Your task to perform on an android device: Look up the book "The Girl on the Train". Image 0: 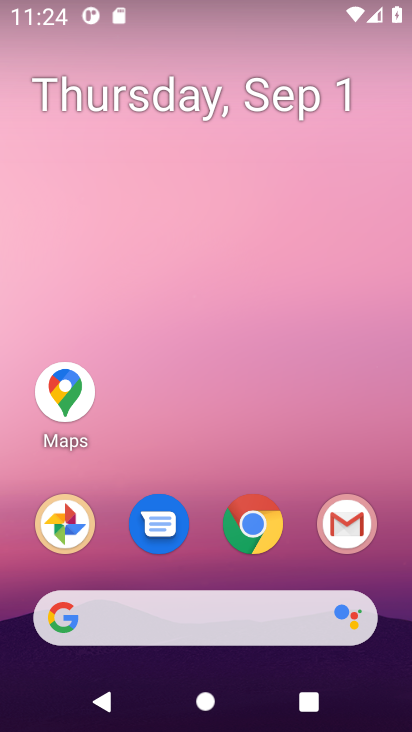
Step 0: click (225, 621)
Your task to perform on an android device: Look up the book "The Girl on the Train". Image 1: 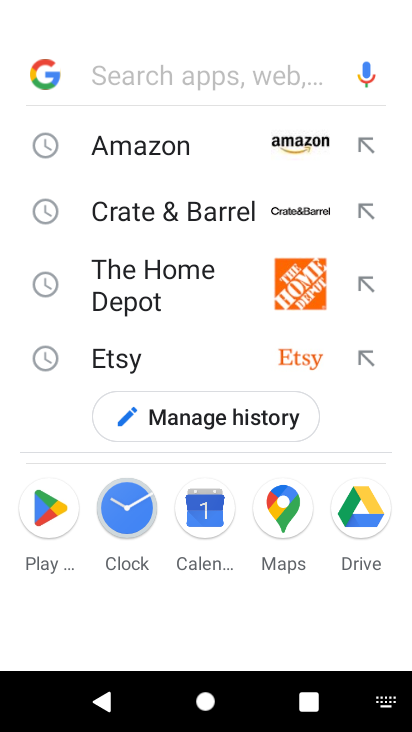
Step 1: press enter
Your task to perform on an android device: Look up the book "The Girl on the Train". Image 2: 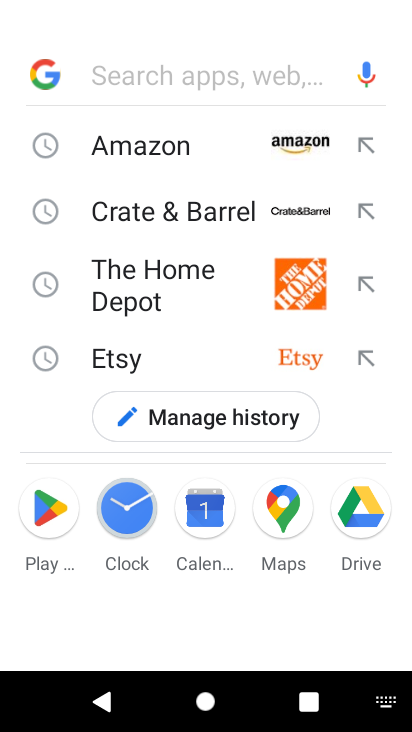
Step 2: type "the train"
Your task to perform on an android device: Look up the book "The Girl on the Train". Image 3: 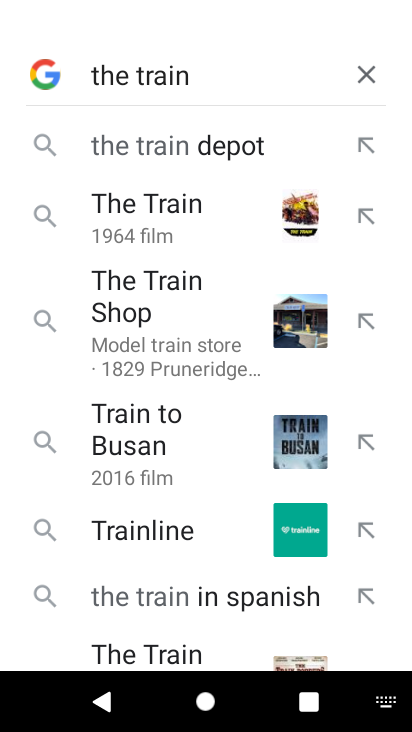
Step 3: click (150, 212)
Your task to perform on an android device: Look up the book "The Girl on the Train". Image 4: 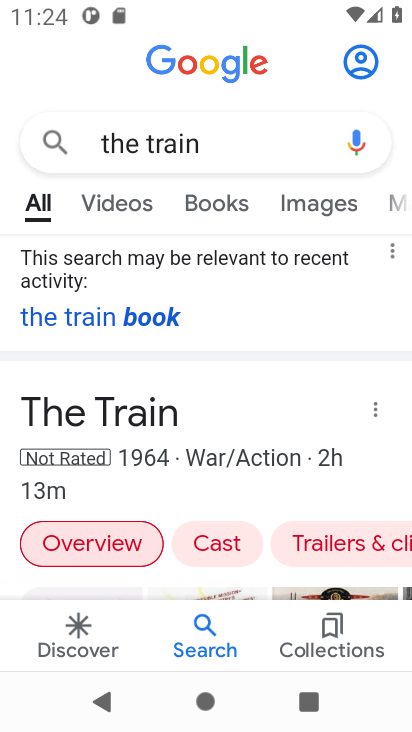
Step 4: drag from (236, 392) to (253, 208)
Your task to perform on an android device: Look up the book "The Girl on the Train". Image 5: 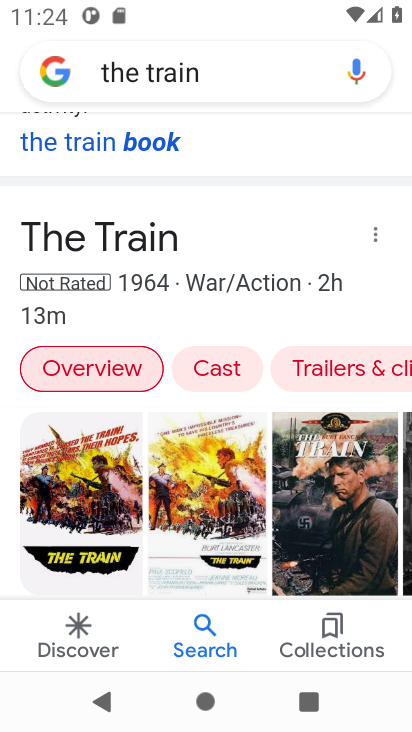
Step 5: drag from (221, 452) to (228, 168)
Your task to perform on an android device: Look up the book "The Girl on the Train". Image 6: 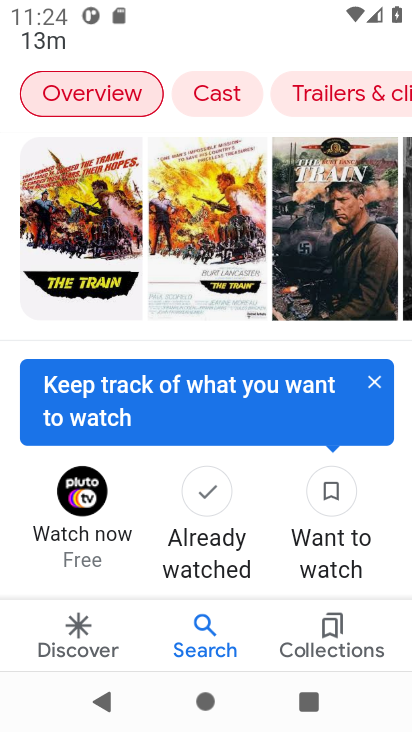
Step 6: drag from (241, 484) to (230, 266)
Your task to perform on an android device: Look up the book "The Girl on the Train". Image 7: 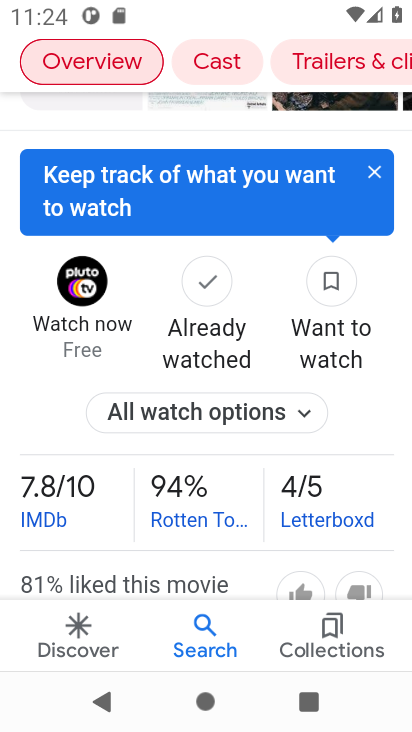
Step 7: drag from (224, 502) to (211, 252)
Your task to perform on an android device: Look up the book "The Girl on the Train". Image 8: 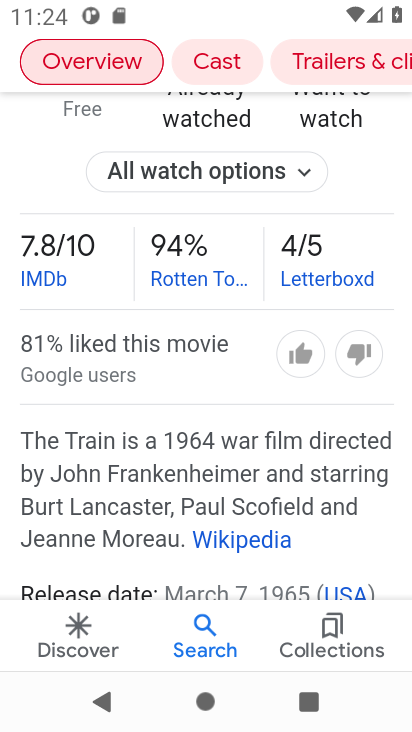
Step 8: drag from (232, 550) to (228, 241)
Your task to perform on an android device: Look up the book "The Girl on the Train". Image 9: 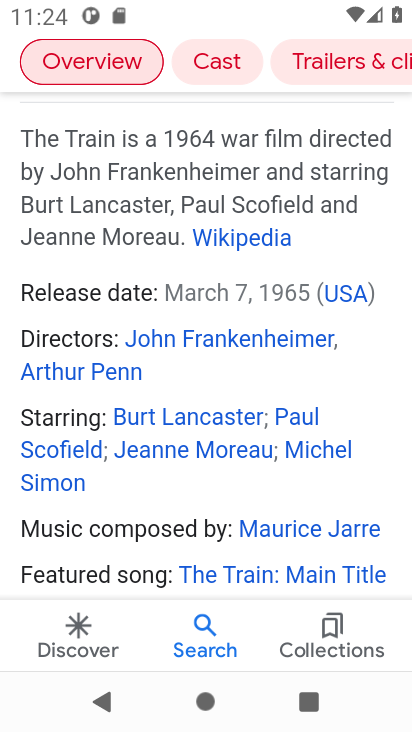
Step 9: drag from (238, 526) to (215, 261)
Your task to perform on an android device: Look up the book "The Girl on the Train". Image 10: 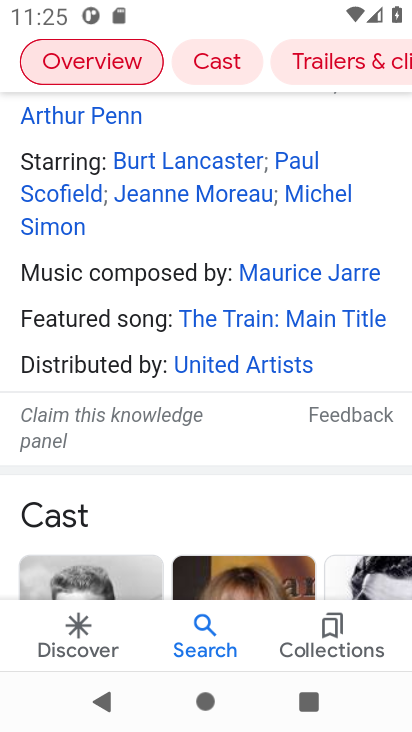
Step 10: drag from (222, 151) to (230, 514)
Your task to perform on an android device: Look up the book "The Girl on the Train". Image 11: 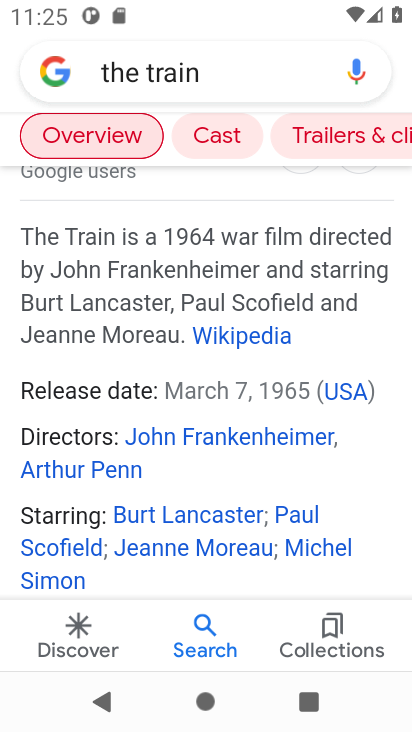
Step 11: drag from (236, 129) to (254, 491)
Your task to perform on an android device: Look up the book "The Girl on the Train". Image 12: 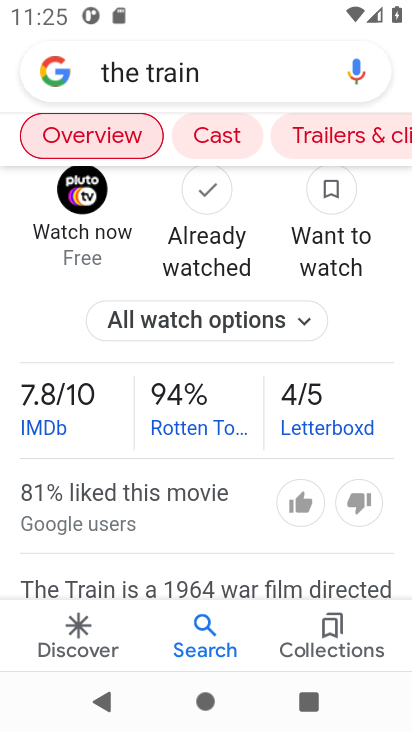
Step 12: drag from (253, 181) to (277, 522)
Your task to perform on an android device: Look up the book "The Girl on the Train". Image 13: 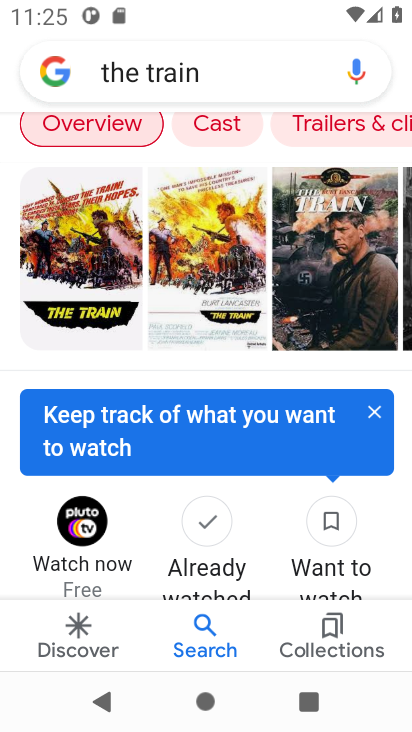
Step 13: drag from (268, 138) to (294, 482)
Your task to perform on an android device: Look up the book "The Girl on the Train". Image 14: 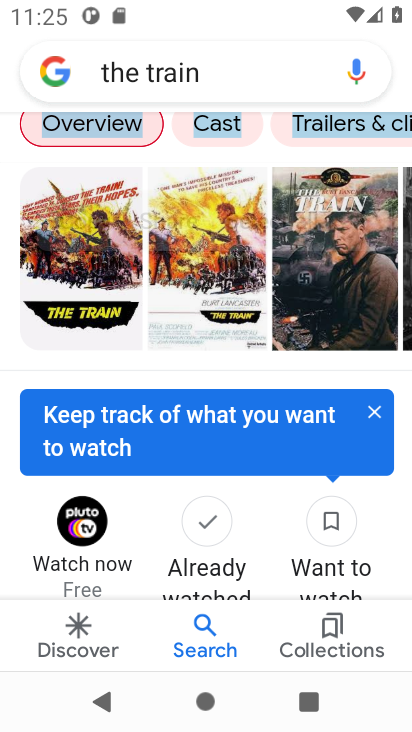
Step 14: drag from (289, 142) to (292, 475)
Your task to perform on an android device: Look up the book "The Girl on the Train". Image 15: 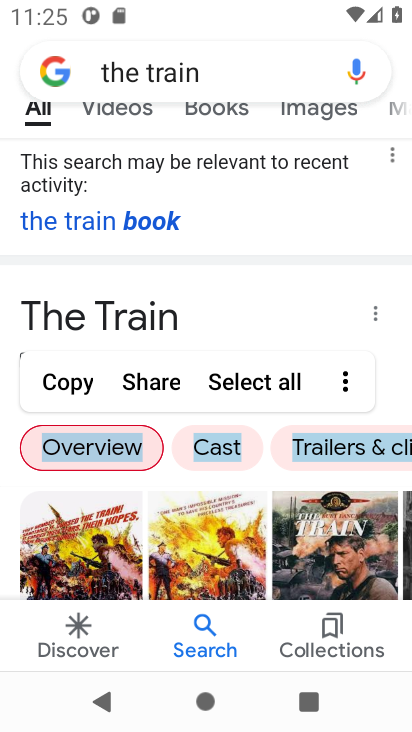
Step 15: click (141, 218)
Your task to perform on an android device: Look up the book "The Girl on the Train". Image 16: 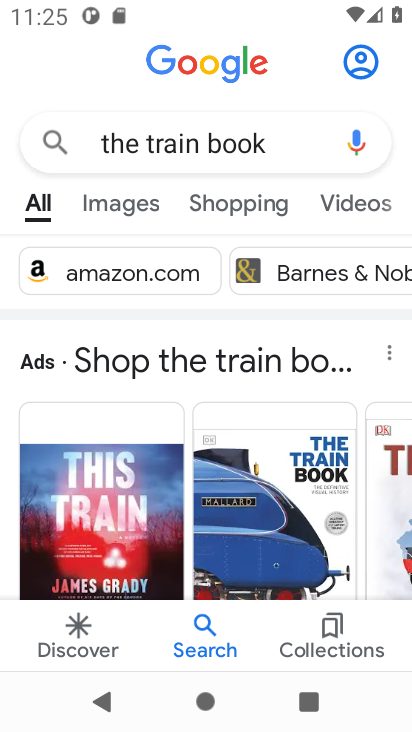
Step 16: drag from (234, 438) to (201, 180)
Your task to perform on an android device: Look up the book "The Girl on the Train". Image 17: 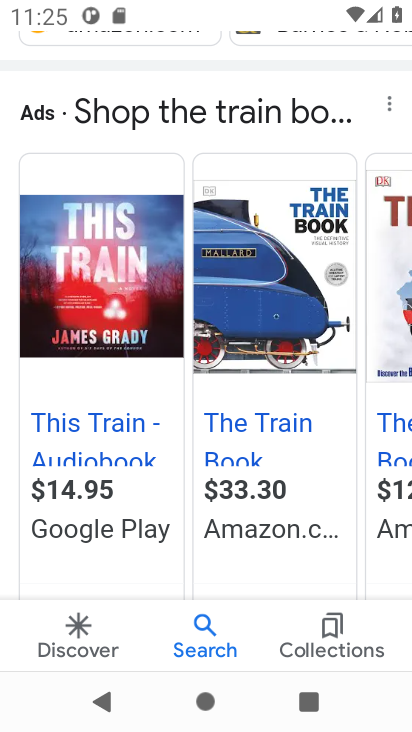
Step 17: drag from (214, 510) to (178, 150)
Your task to perform on an android device: Look up the book "The Girl on the Train". Image 18: 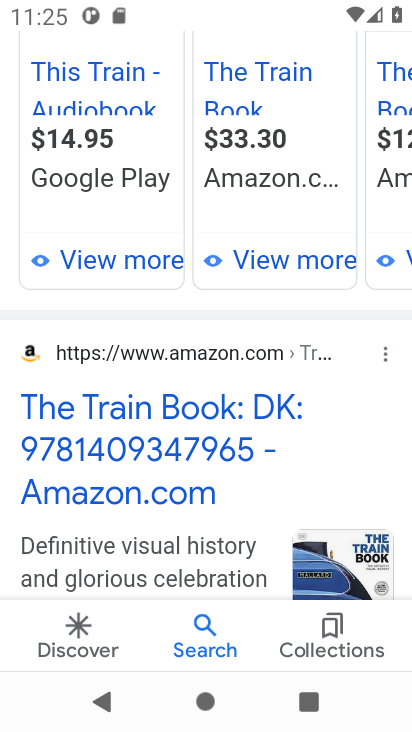
Step 18: drag from (169, 378) to (161, 231)
Your task to perform on an android device: Look up the book "The Girl on the Train". Image 19: 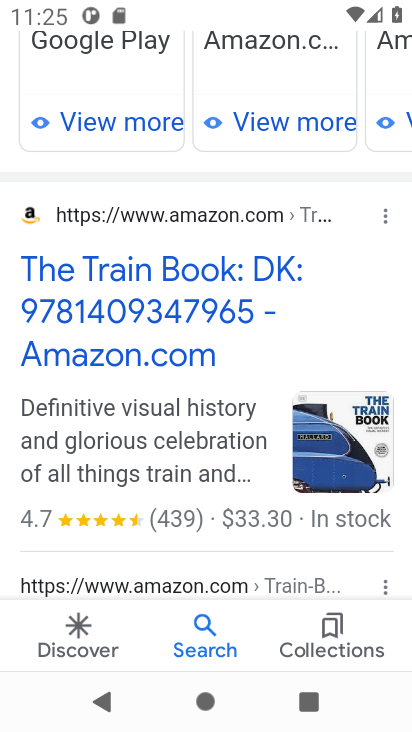
Step 19: click (128, 301)
Your task to perform on an android device: Look up the book "The Girl on the Train". Image 20: 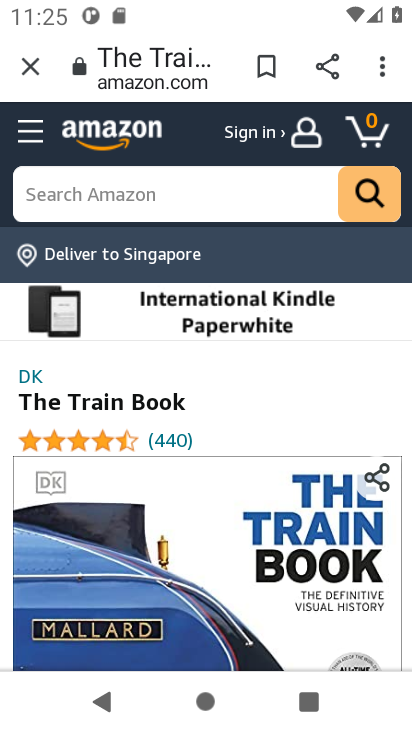
Step 20: click (200, 189)
Your task to perform on an android device: Look up the book "The Girl on the Train". Image 21: 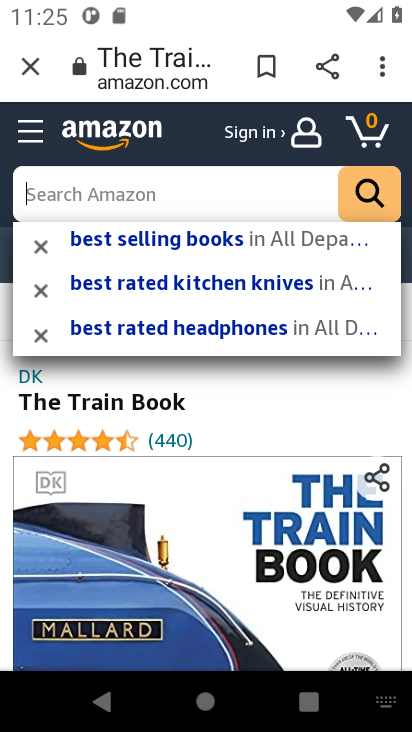
Step 21: task complete